Your task to perform on an android device: What's on my calendar tomorrow? Image 0: 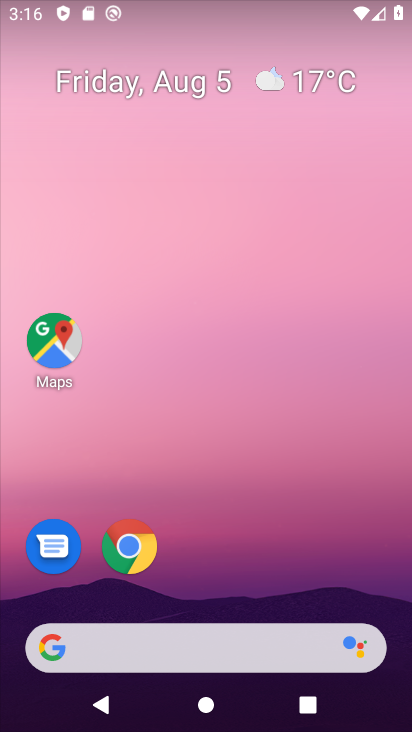
Step 0: press home button
Your task to perform on an android device: What's on my calendar tomorrow? Image 1: 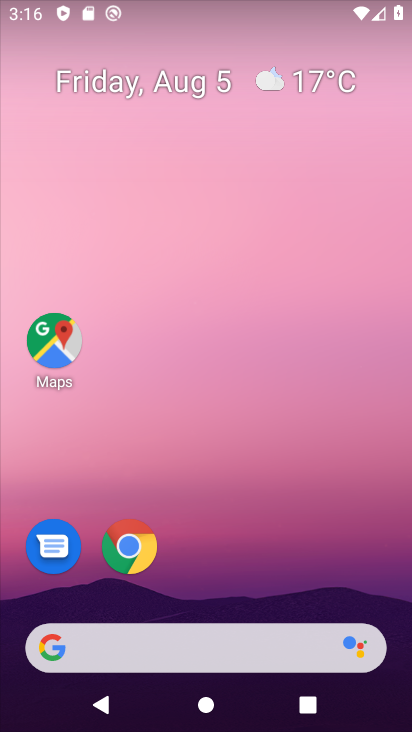
Step 1: drag from (321, 492) to (313, 113)
Your task to perform on an android device: What's on my calendar tomorrow? Image 2: 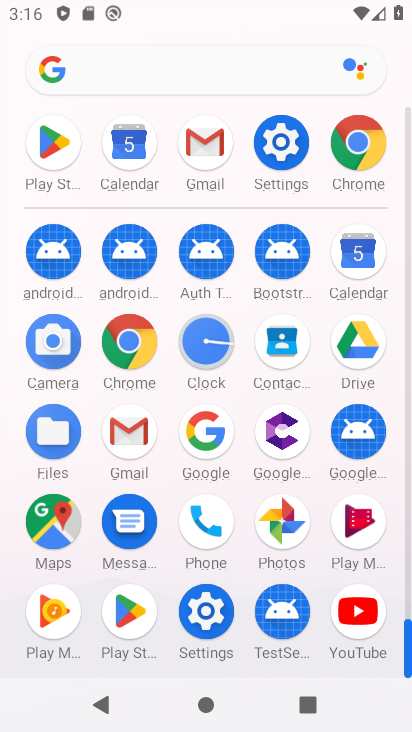
Step 2: click (366, 259)
Your task to perform on an android device: What's on my calendar tomorrow? Image 3: 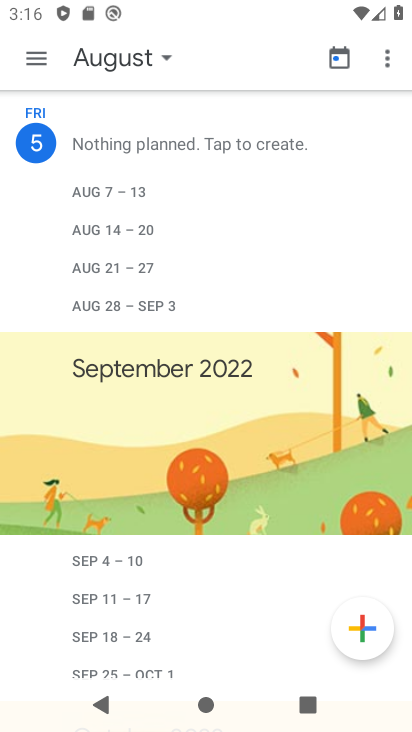
Step 3: click (164, 53)
Your task to perform on an android device: What's on my calendar tomorrow? Image 4: 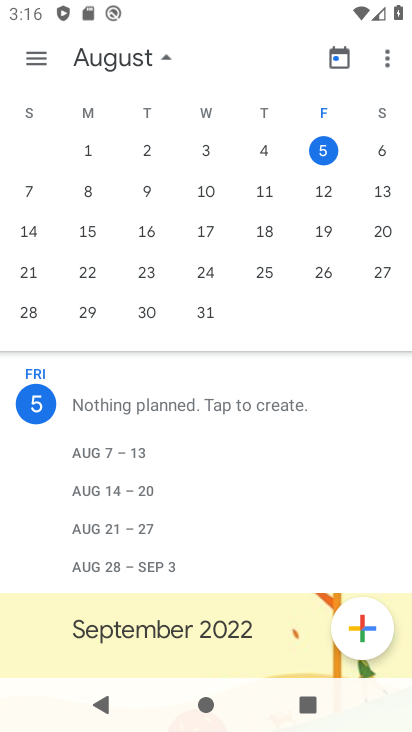
Step 4: click (384, 154)
Your task to perform on an android device: What's on my calendar tomorrow? Image 5: 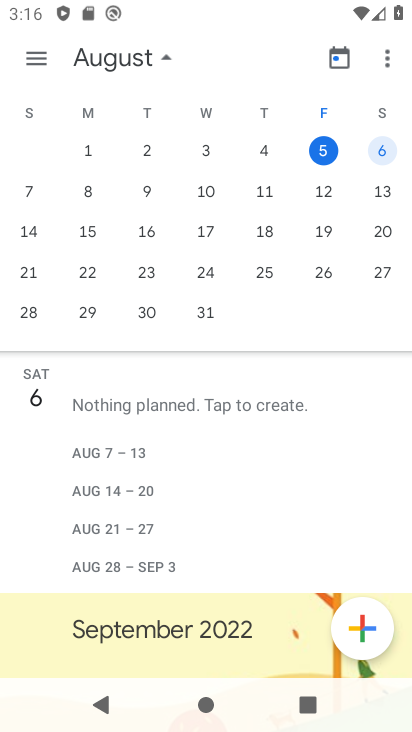
Step 5: task complete